Your task to perform on an android device: Open Google Chrome and open the bookmarks view Image 0: 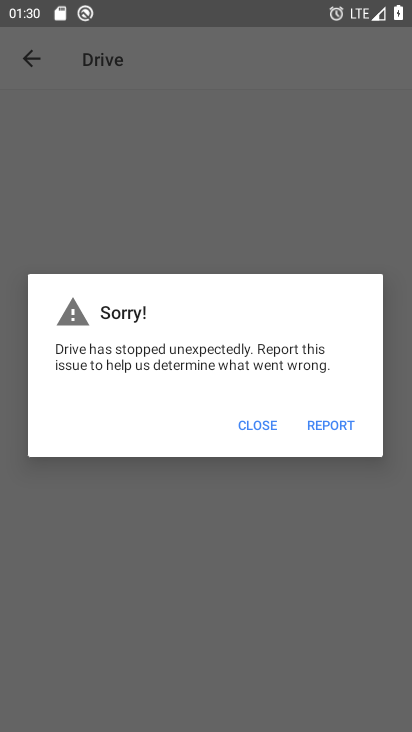
Step 0: press home button
Your task to perform on an android device: Open Google Chrome and open the bookmarks view Image 1: 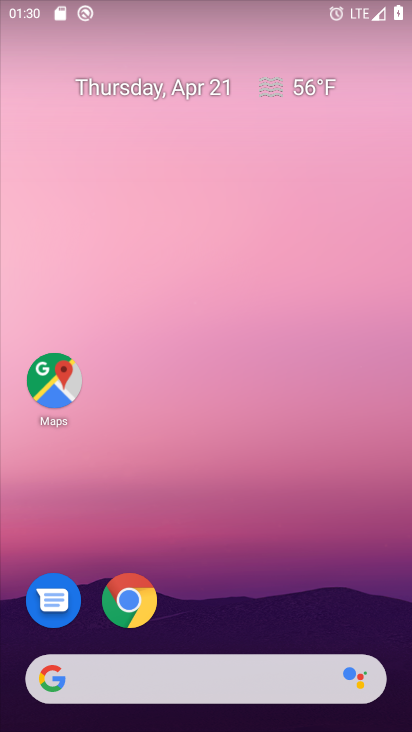
Step 1: click (132, 611)
Your task to perform on an android device: Open Google Chrome and open the bookmarks view Image 2: 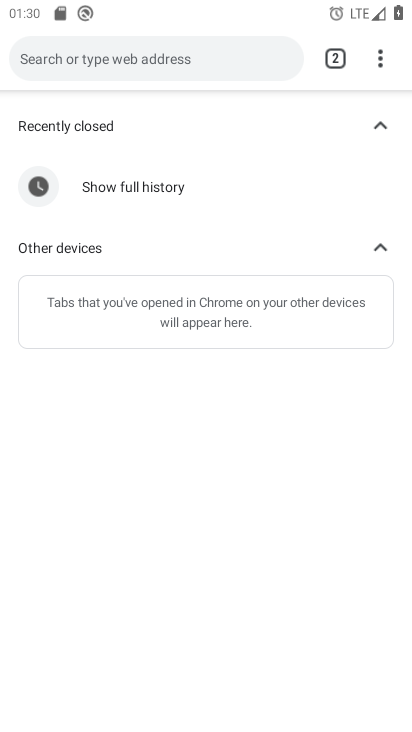
Step 2: click (380, 62)
Your task to perform on an android device: Open Google Chrome and open the bookmarks view Image 3: 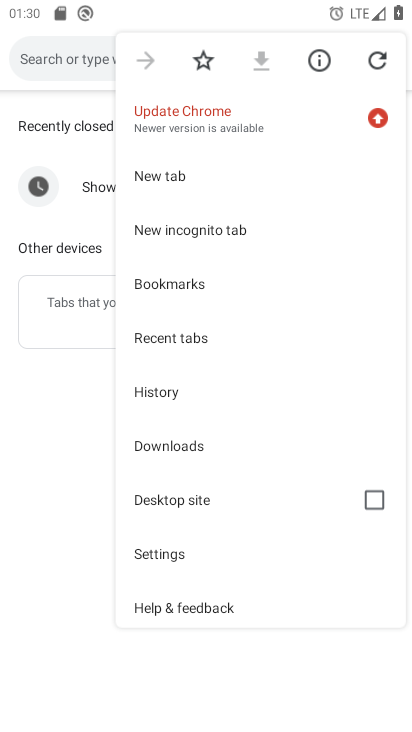
Step 3: click (190, 286)
Your task to perform on an android device: Open Google Chrome and open the bookmarks view Image 4: 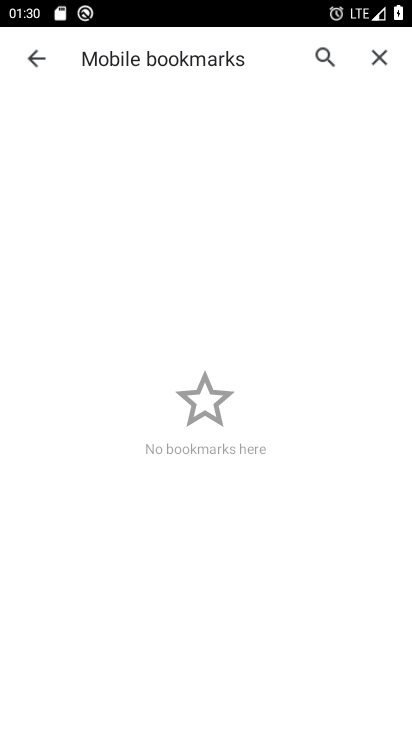
Step 4: task complete